Your task to perform on an android device: turn off improve location accuracy Image 0: 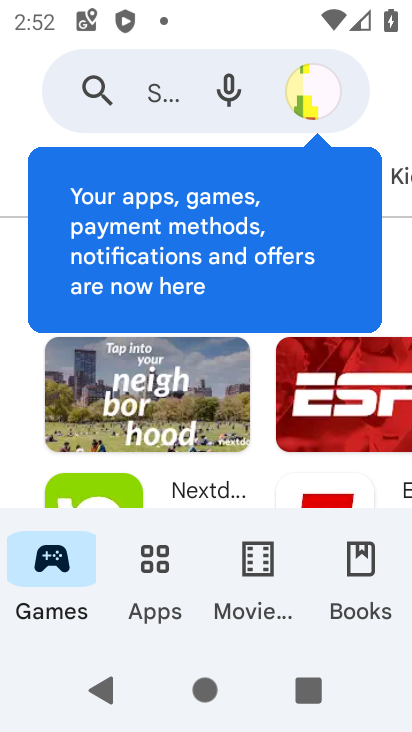
Step 0: task complete